Your task to perform on an android device: turn off smart reply in the gmail app Image 0: 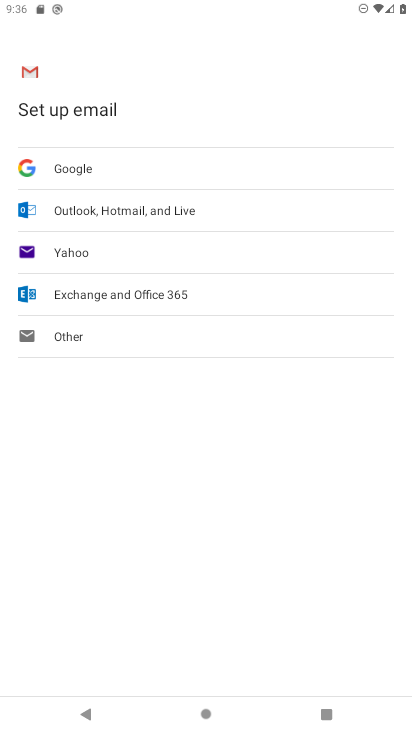
Step 0: press home button
Your task to perform on an android device: turn off smart reply in the gmail app Image 1: 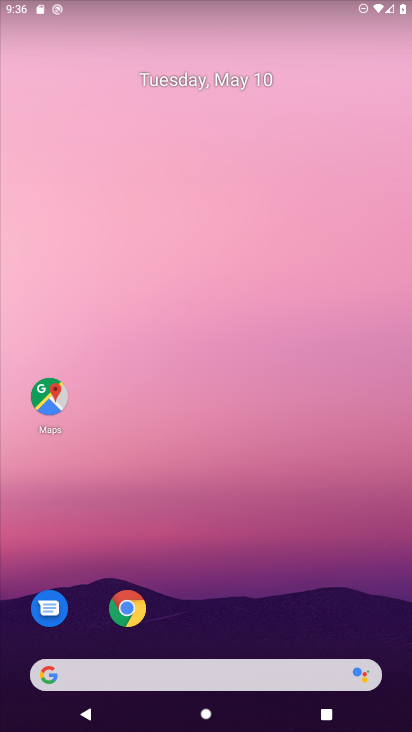
Step 1: drag from (379, 637) to (296, 60)
Your task to perform on an android device: turn off smart reply in the gmail app Image 2: 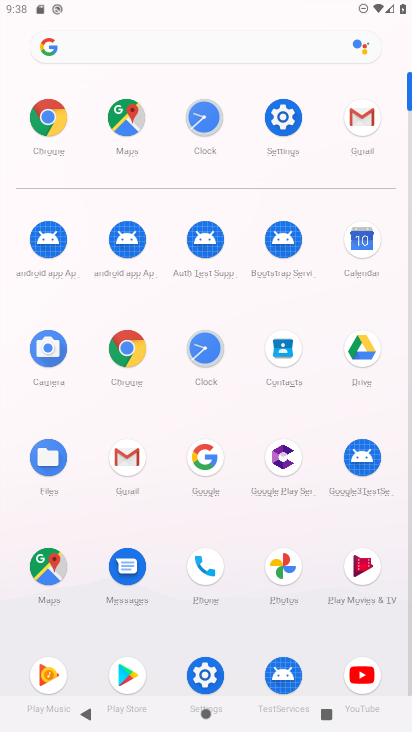
Step 2: click (133, 462)
Your task to perform on an android device: turn off smart reply in the gmail app Image 3: 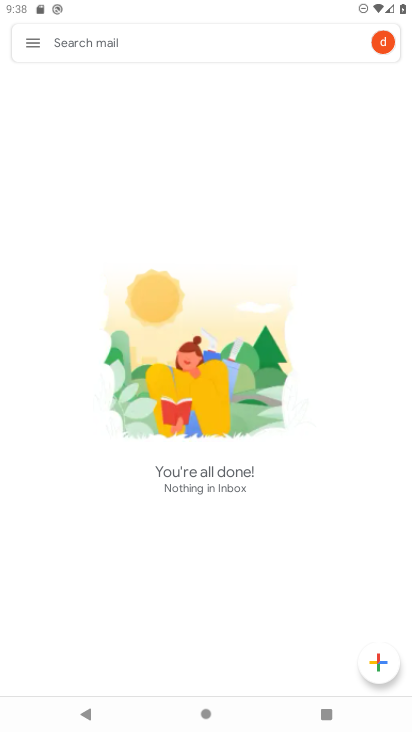
Step 3: click (29, 32)
Your task to perform on an android device: turn off smart reply in the gmail app Image 4: 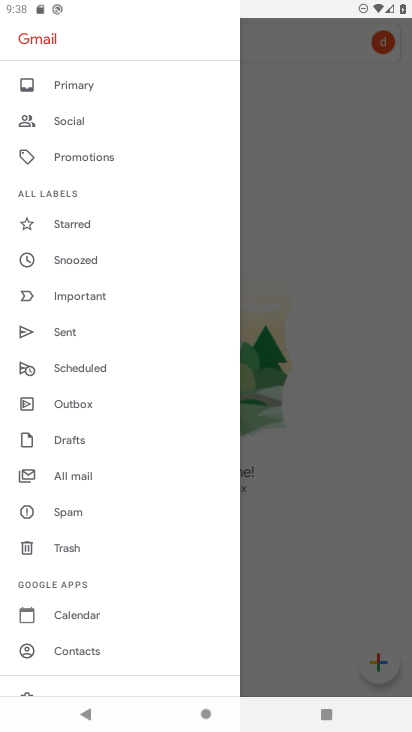
Step 4: drag from (93, 637) to (171, 255)
Your task to perform on an android device: turn off smart reply in the gmail app Image 5: 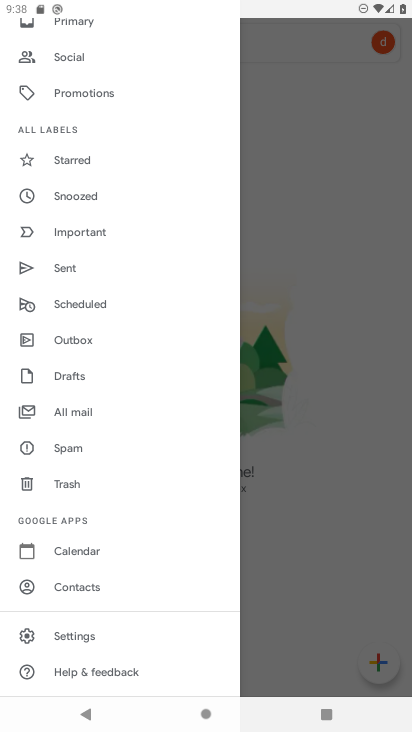
Step 5: click (92, 647)
Your task to perform on an android device: turn off smart reply in the gmail app Image 6: 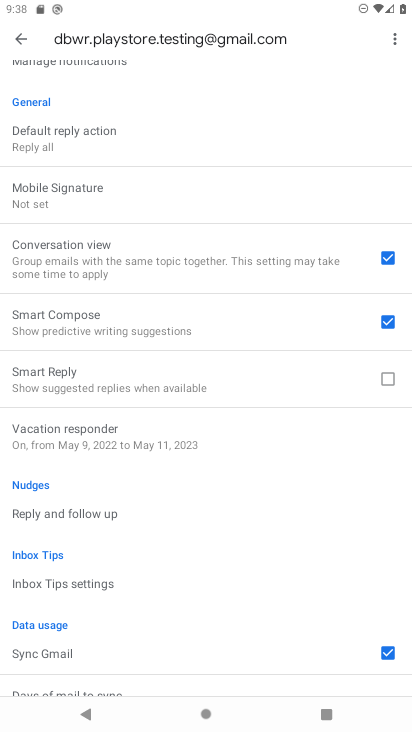
Step 6: click (194, 376)
Your task to perform on an android device: turn off smart reply in the gmail app Image 7: 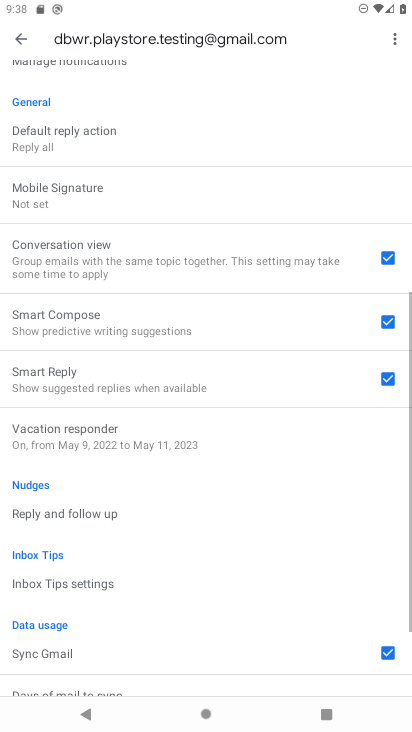
Step 7: click (194, 376)
Your task to perform on an android device: turn off smart reply in the gmail app Image 8: 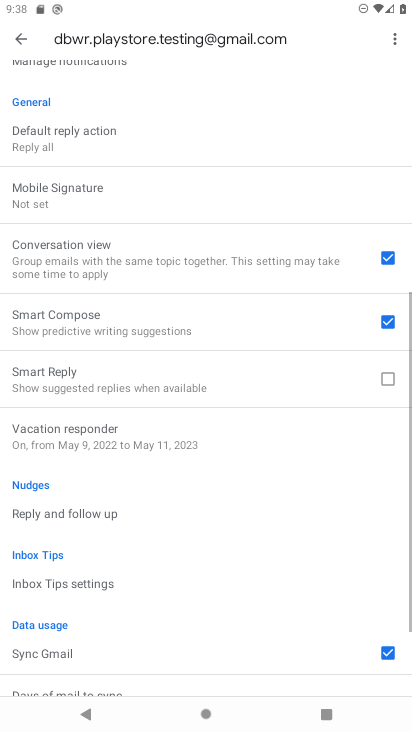
Step 8: task complete